Your task to perform on an android device: Clear the cart on target.com. Search for macbook air on target.com, select the first entry, add it to the cart, then select checkout. Image 0: 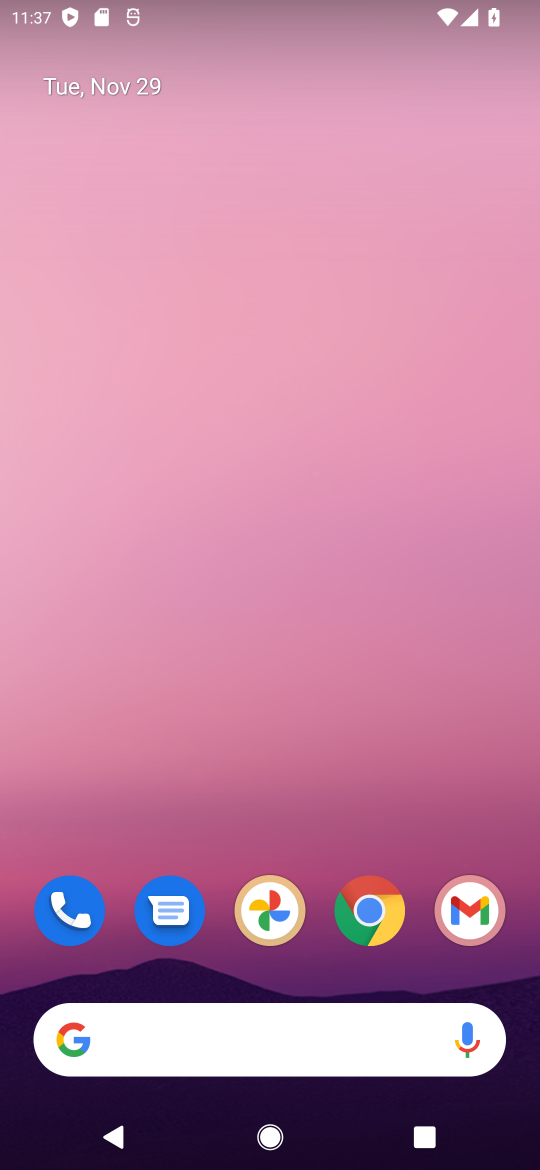
Step 0: click (372, 914)
Your task to perform on an android device: Clear the cart on target.com. Search for macbook air on target.com, select the first entry, add it to the cart, then select checkout. Image 1: 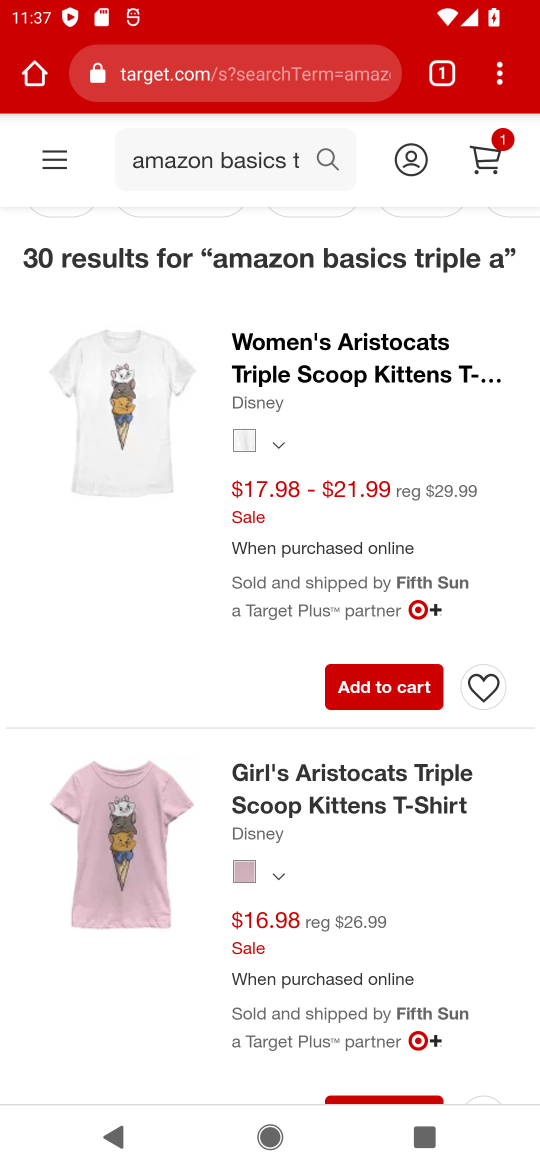
Step 1: click (211, 71)
Your task to perform on an android device: Clear the cart on target.com. Search for macbook air on target.com, select the first entry, add it to the cart, then select checkout. Image 2: 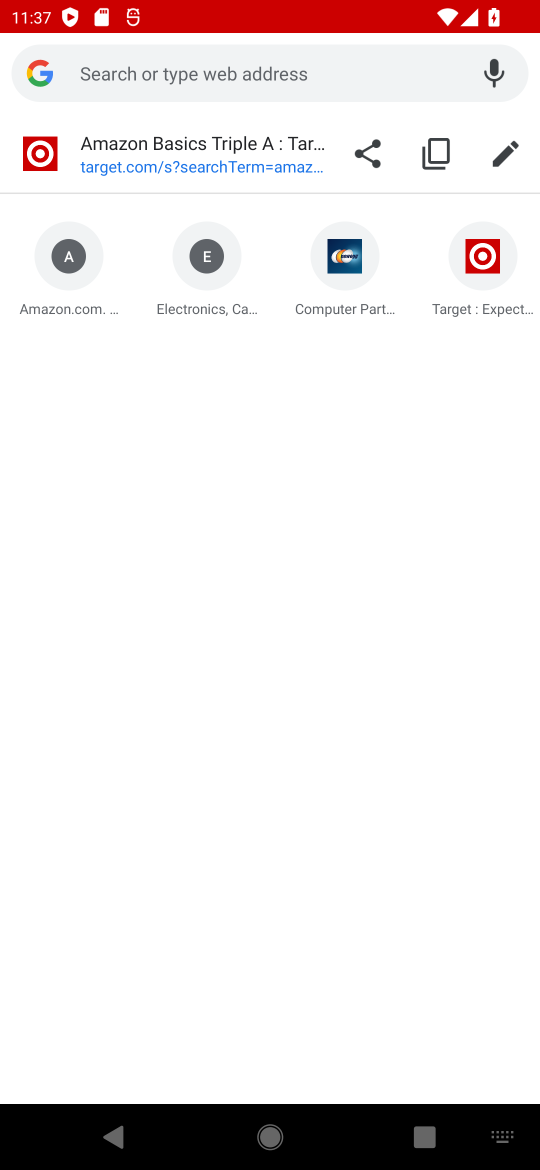
Step 2: click (471, 255)
Your task to perform on an android device: Clear the cart on target.com. Search for macbook air on target.com, select the first entry, add it to the cart, then select checkout. Image 3: 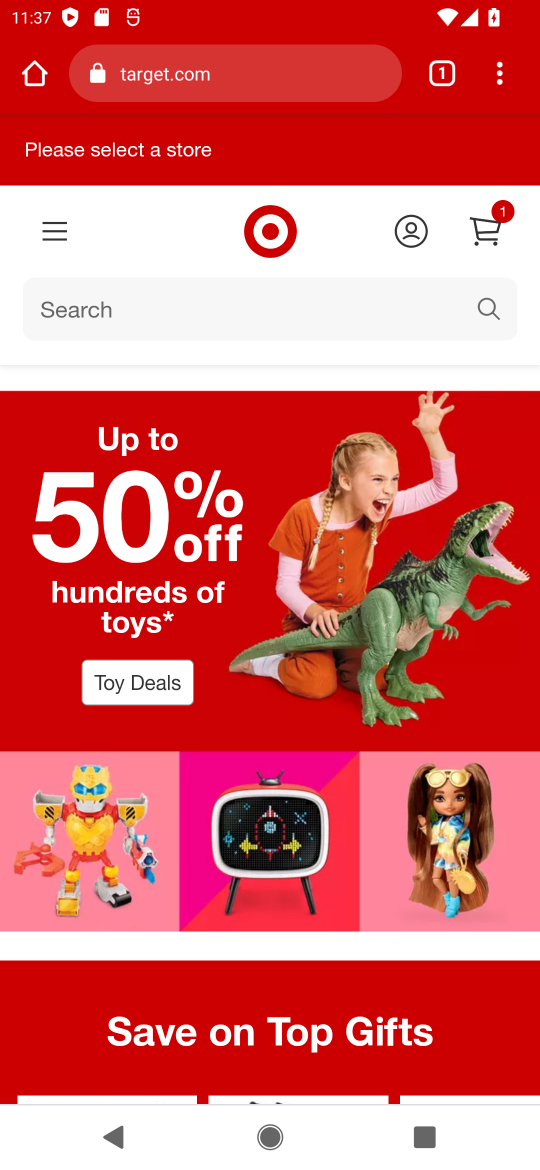
Step 3: click (490, 230)
Your task to perform on an android device: Clear the cart on target.com. Search for macbook air on target.com, select the first entry, add it to the cart, then select checkout. Image 4: 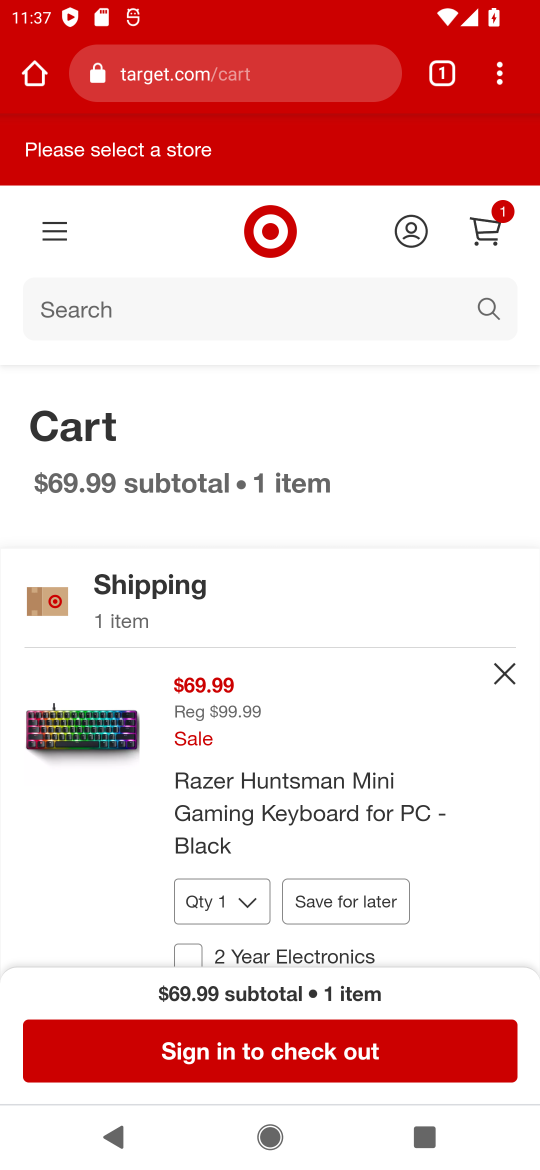
Step 4: click (502, 677)
Your task to perform on an android device: Clear the cart on target.com. Search for macbook air on target.com, select the first entry, add it to the cart, then select checkout. Image 5: 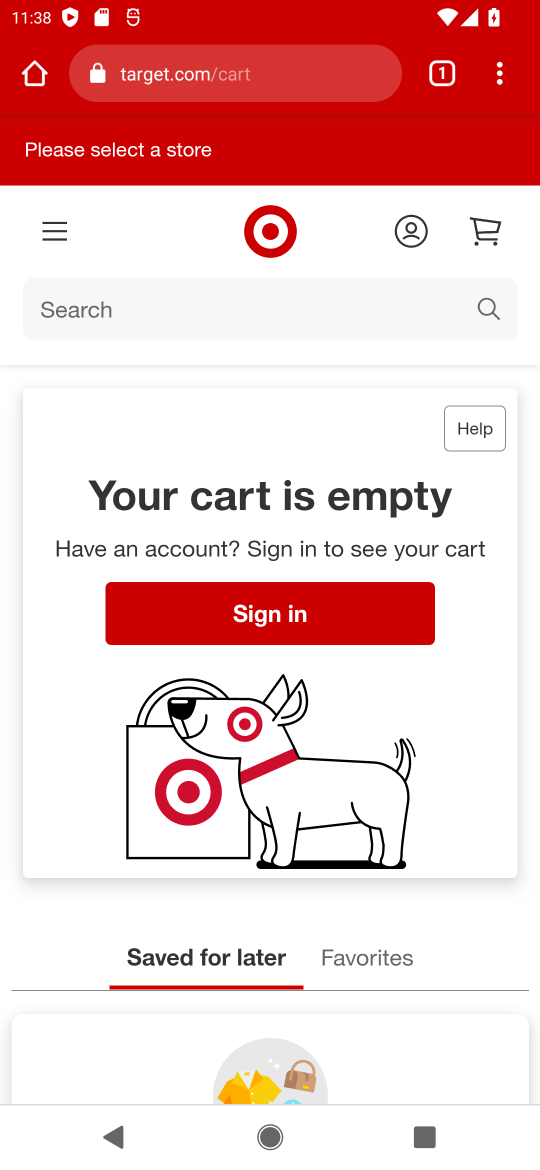
Step 5: click (126, 304)
Your task to perform on an android device: Clear the cart on target.com. Search for macbook air on target.com, select the first entry, add it to the cart, then select checkout. Image 6: 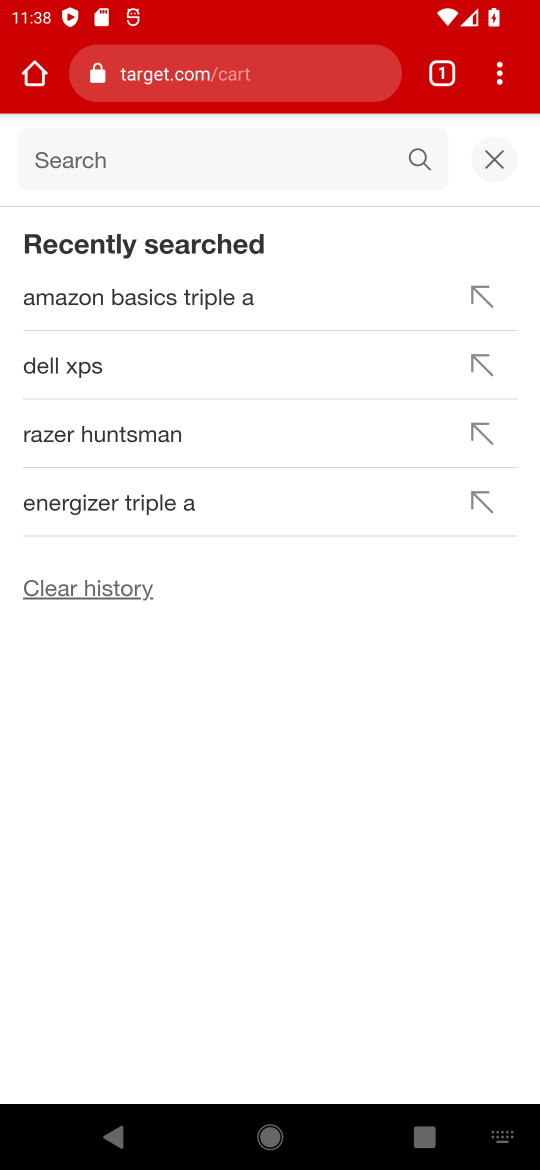
Step 6: type "macbook air "
Your task to perform on an android device: Clear the cart on target.com. Search for macbook air on target.com, select the first entry, add it to the cart, then select checkout. Image 7: 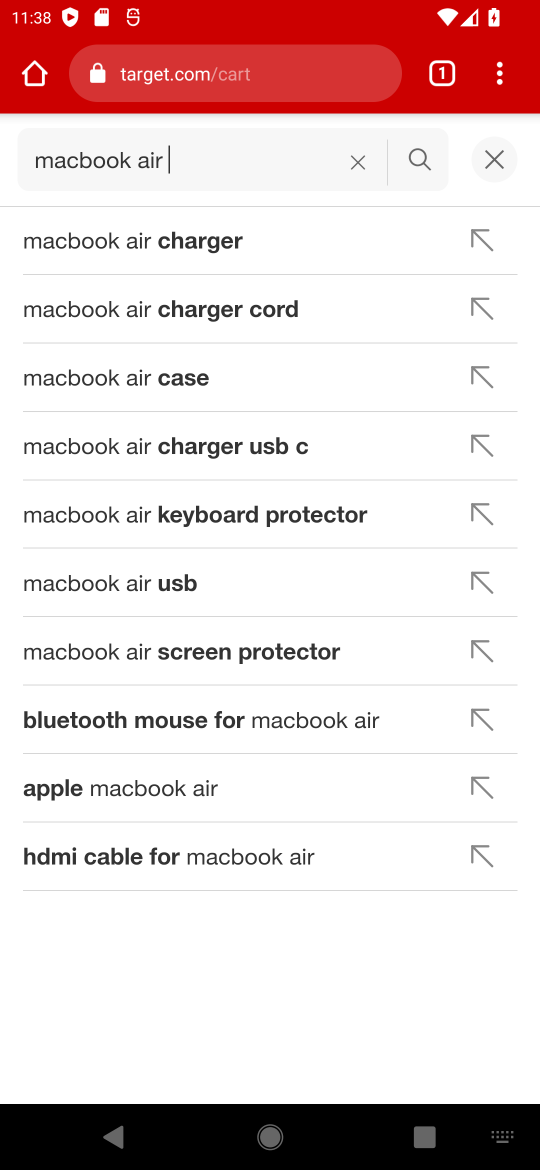
Step 7: click (181, 790)
Your task to perform on an android device: Clear the cart on target.com. Search for macbook air on target.com, select the first entry, add it to the cart, then select checkout. Image 8: 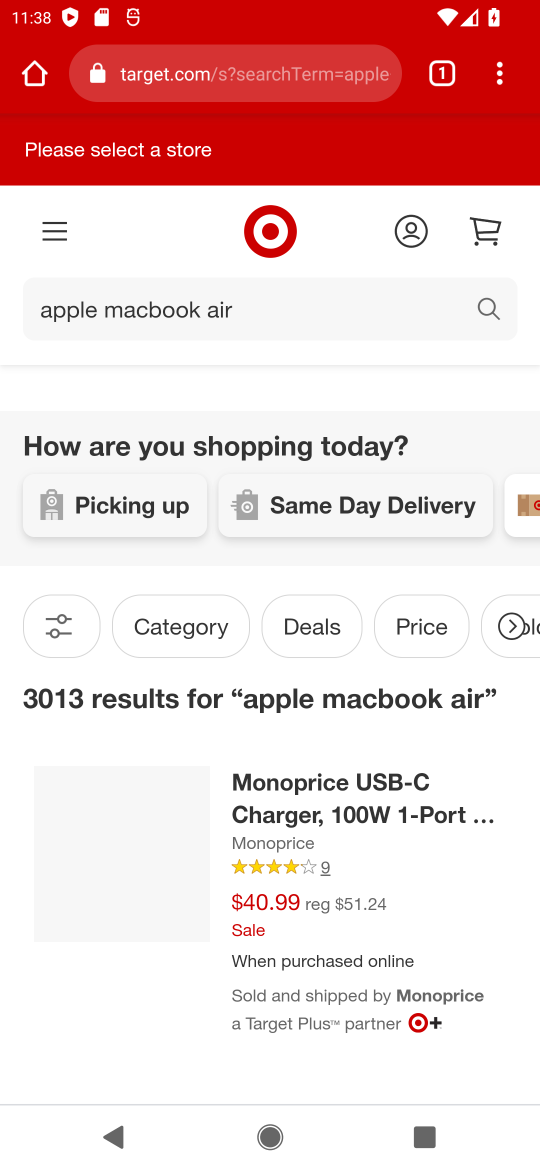
Step 8: drag from (188, 781) to (169, 432)
Your task to perform on an android device: Clear the cart on target.com. Search for macbook air on target.com, select the first entry, add it to the cart, then select checkout. Image 9: 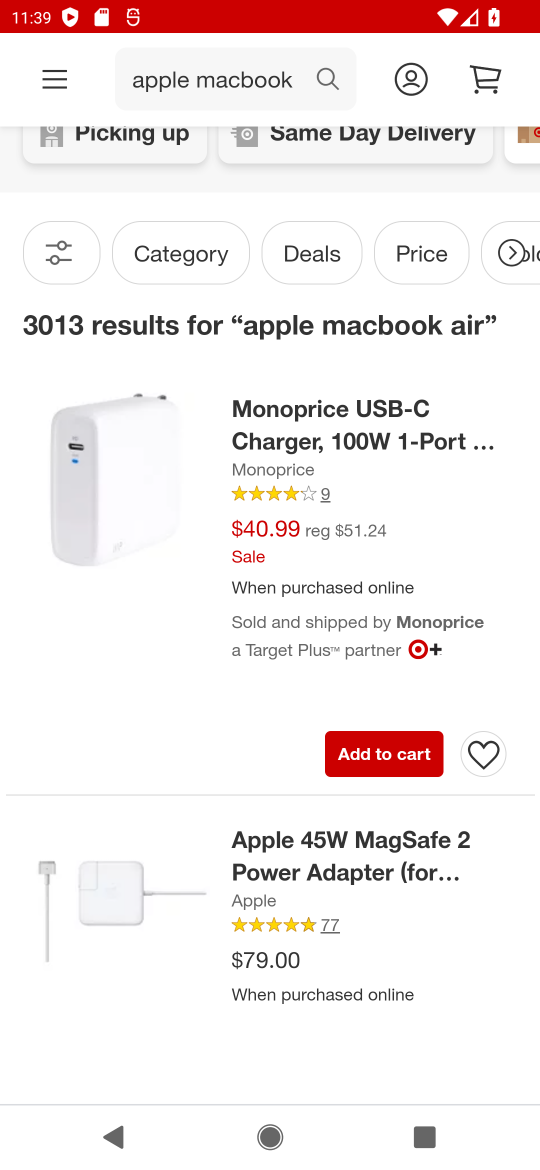
Step 9: click (314, 443)
Your task to perform on an android device: Clear the cart on target.com. Search for macbook air on target.com, select the first entry, add it to the cart, then select checkout. Image 10: 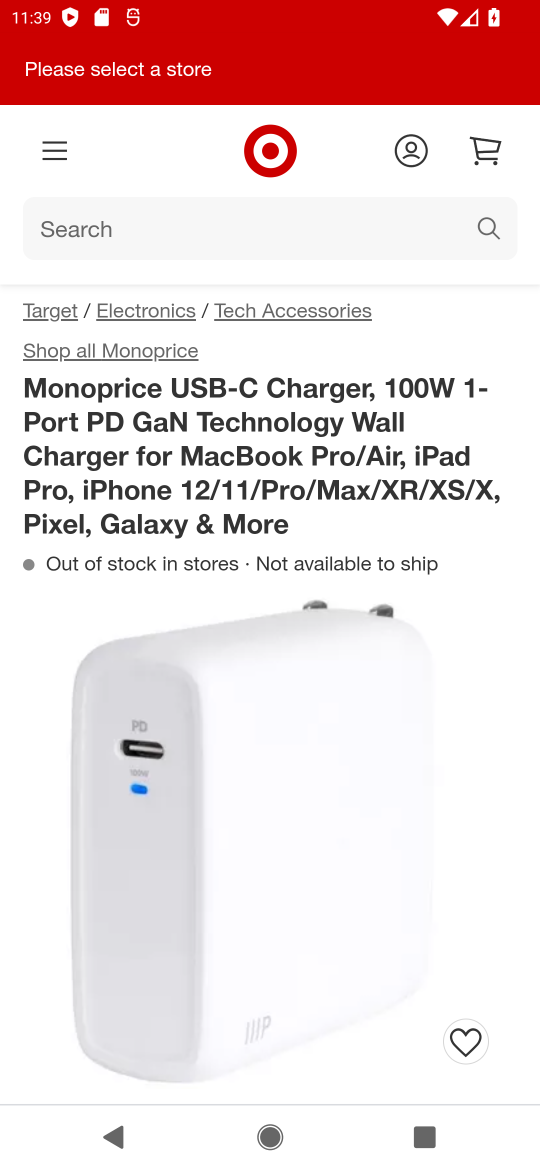
Step 10: drag from (298, 811) to (279, 596)
Your task to perform on an android device: Clear the cart on target.com. Search for macbook air on target.com, select the first entry, add it to the cart, then select checkout. Image 11: 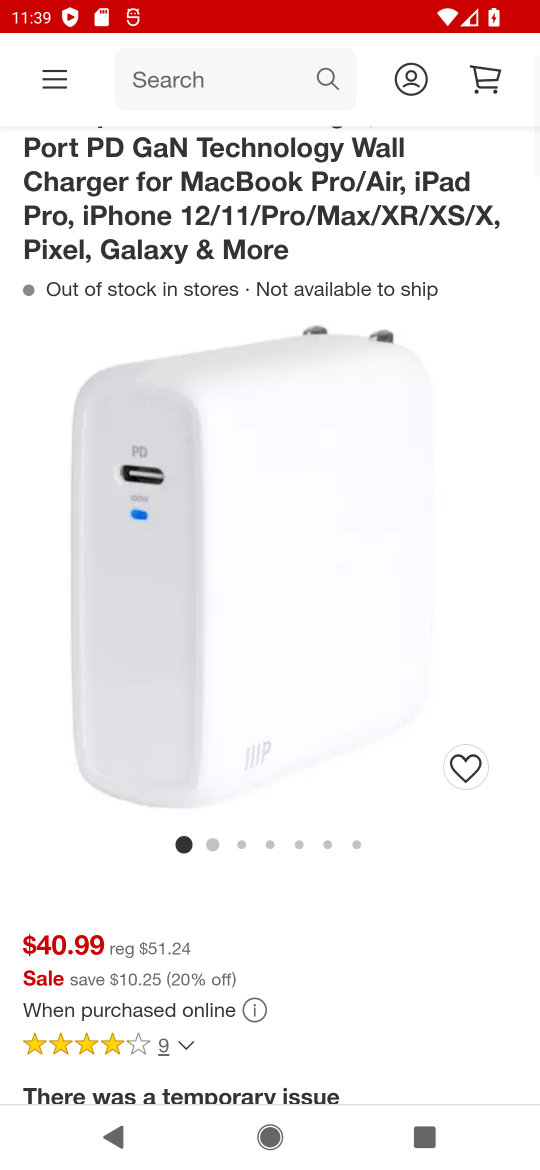
Step 11: drag from (272, 812) to (238, 402)
Your task to perform on an android device: Clear the cart on target.com. Search for macbook air on target.com, select the first entry, add it to the cart, then select checkout. Image 12: 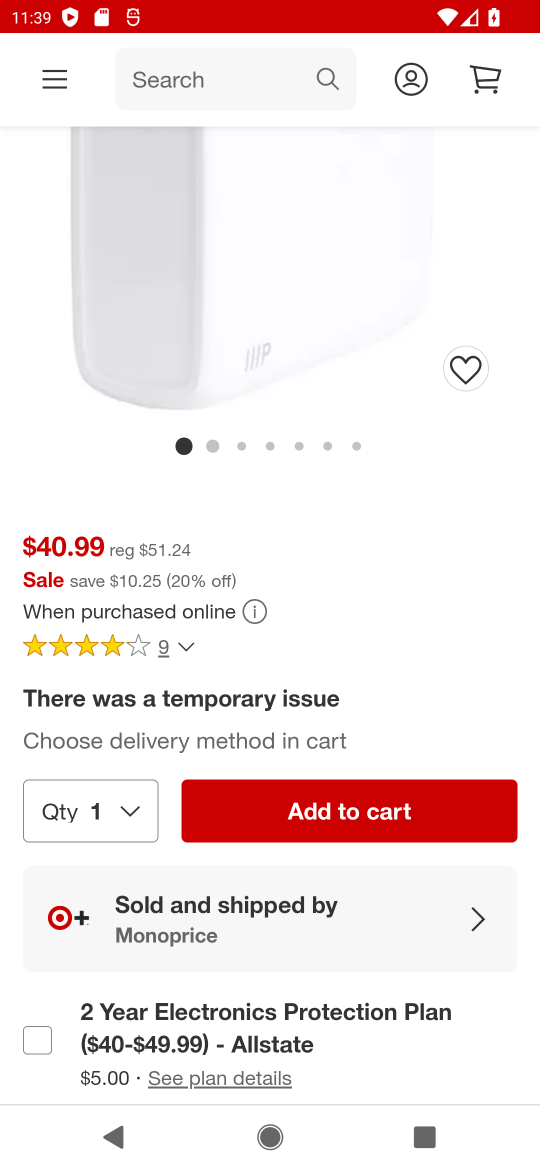
Step 12: click (353, 822)
Your task to perform on an android device: Clear the cart on target.com. Search for macbook air on target.com, select the first entry, add it to the cart, then select checkout. Image 13: 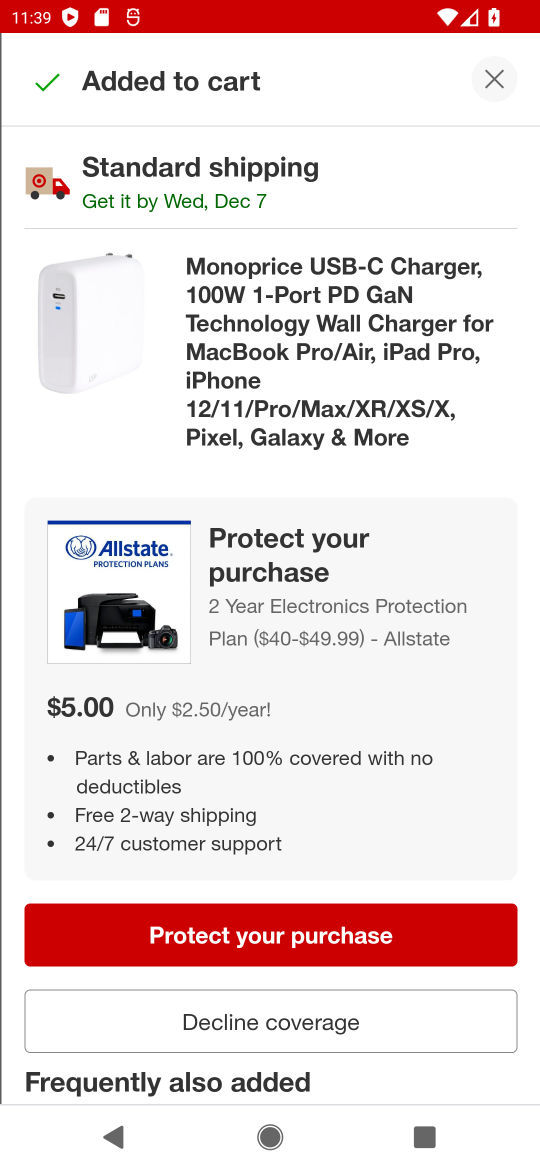
Step 13: click (491, 81)
Your task to perform on an android device: Clear the cart on target.com. Search for macbook air on target.com, select the first entry, add it to the cart, then select checkout. Image 14: 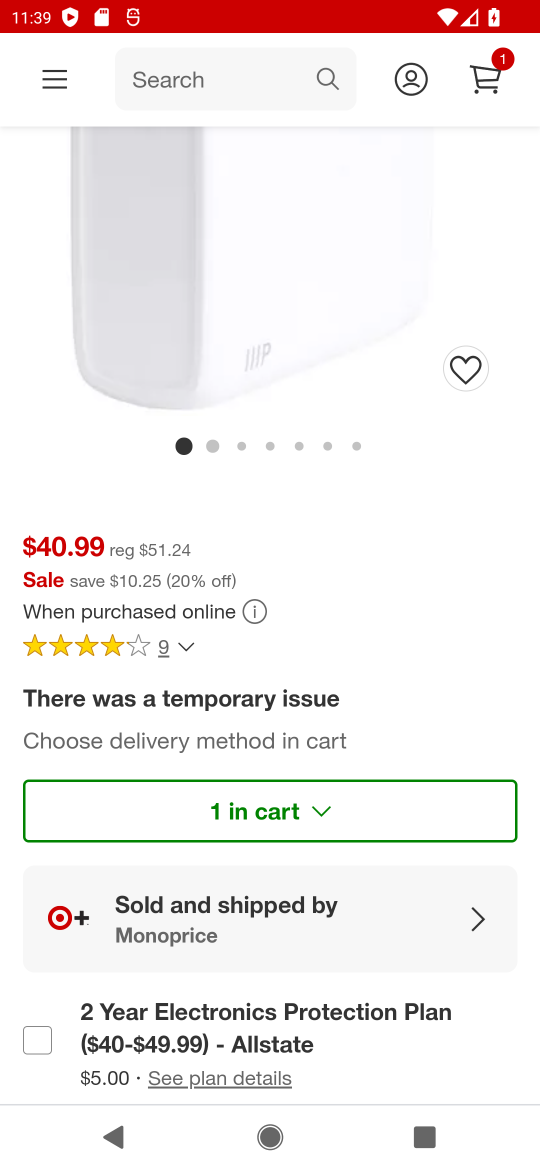
Step 14: drag from (354, 782) to (375, 656)
Your task to perform on an android device: Clear the cart on target.com. Search for macbook air on target.com, select the first entry, add it to the cart, then select checkout. Image 15: 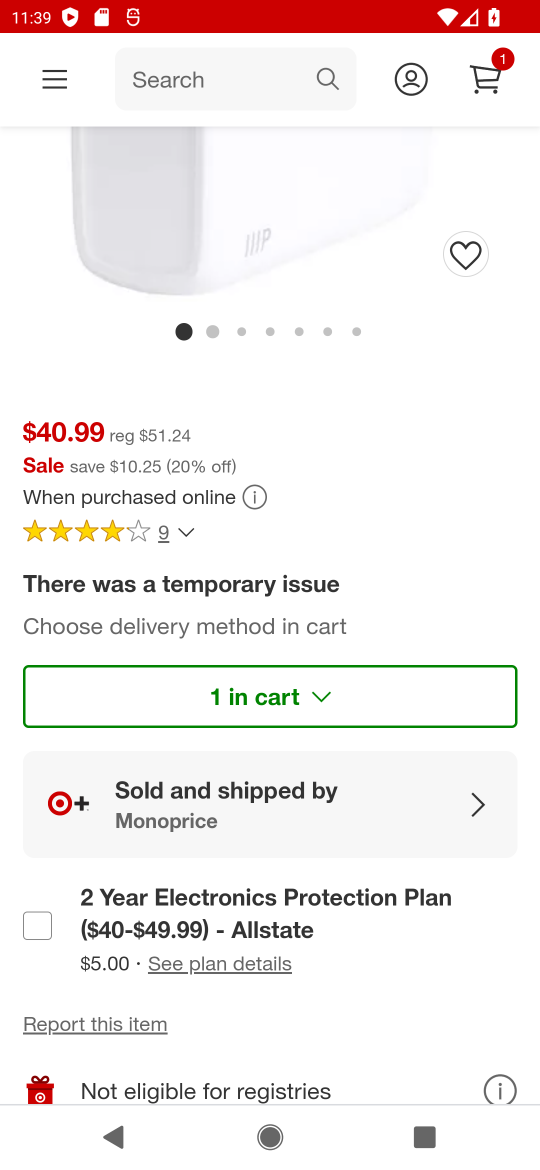
Step 15: click (494, 75)
Your task to perform on an android device: Clear the cart on target.com. Search for macbook air on target.com, select the first entry, add it to the cart, then select checkout. Image 16: 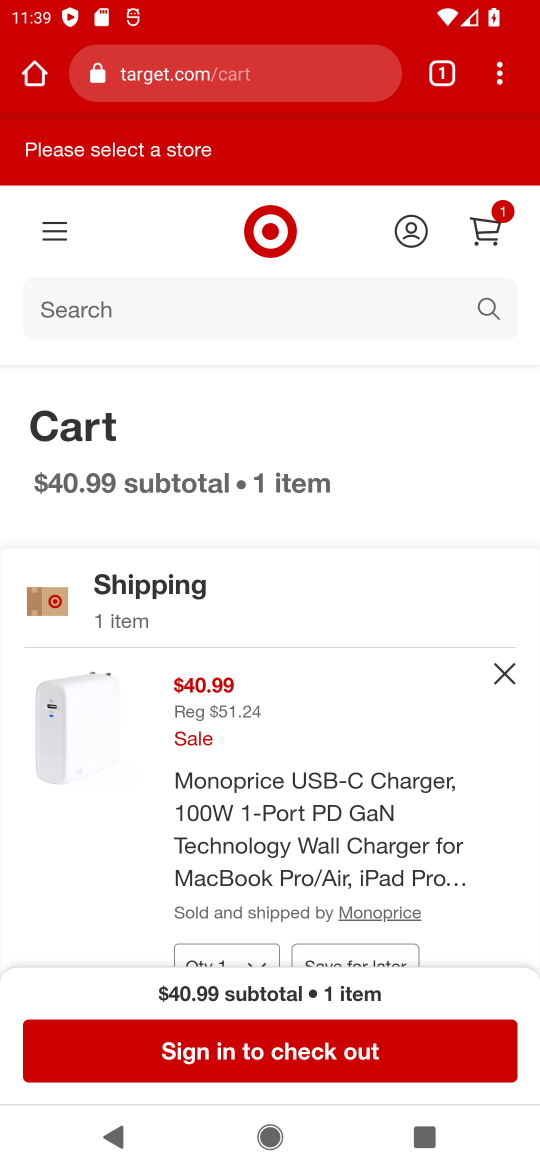
Step 16: click (271, 1055)
Your task to perform on an android device: Clear the cart on target.com. Search for macbook air on target.com, select the first entry, add it to the cart, then select checkout. Image 17: 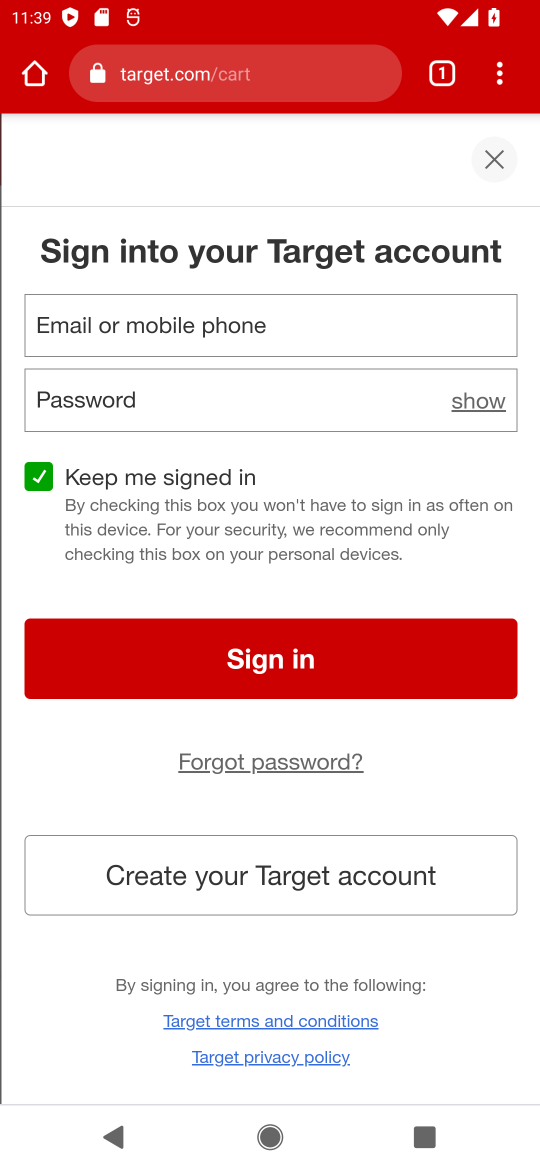
Step 17: task complete